Your task to perform on an android device: Open Reddit.com Image 0: 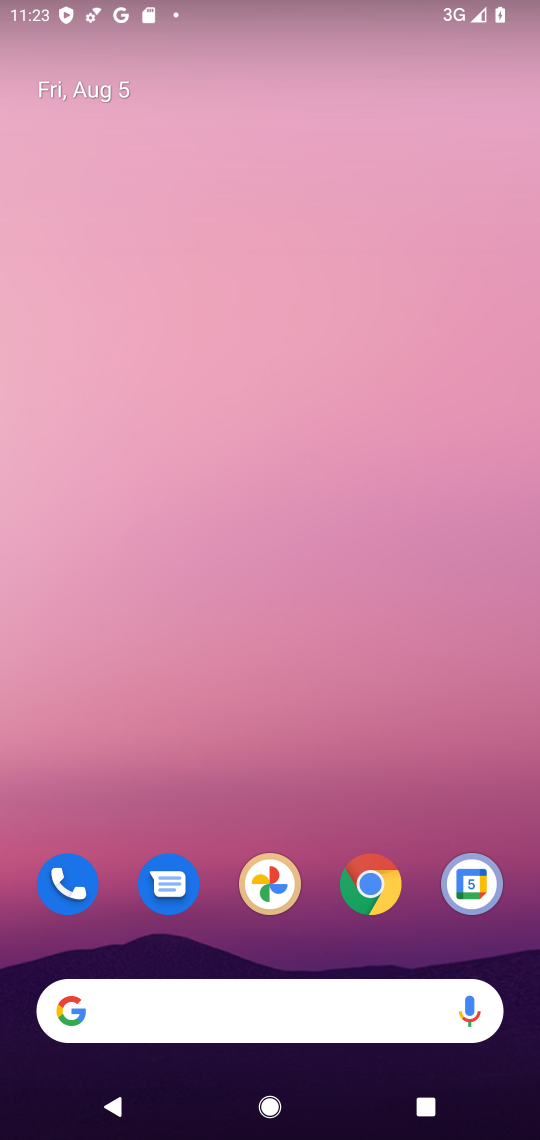
Step 0: click (372, 884)
Your task to perform on an android device: Open Reddit.com Image 1: 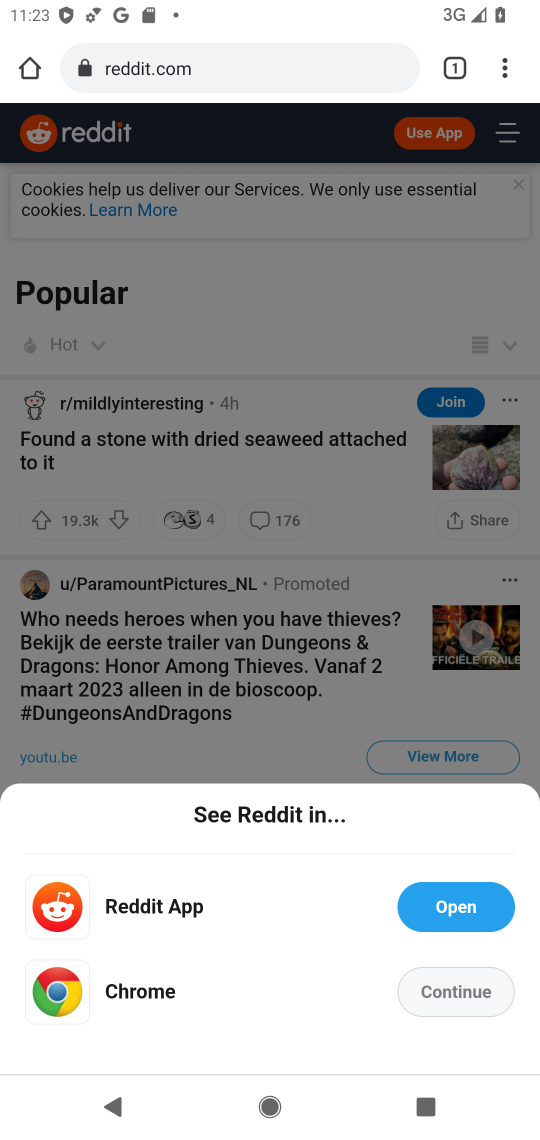
Step 1: task complete